Your task to perform on an android device: turn off airplane mode Image 0: 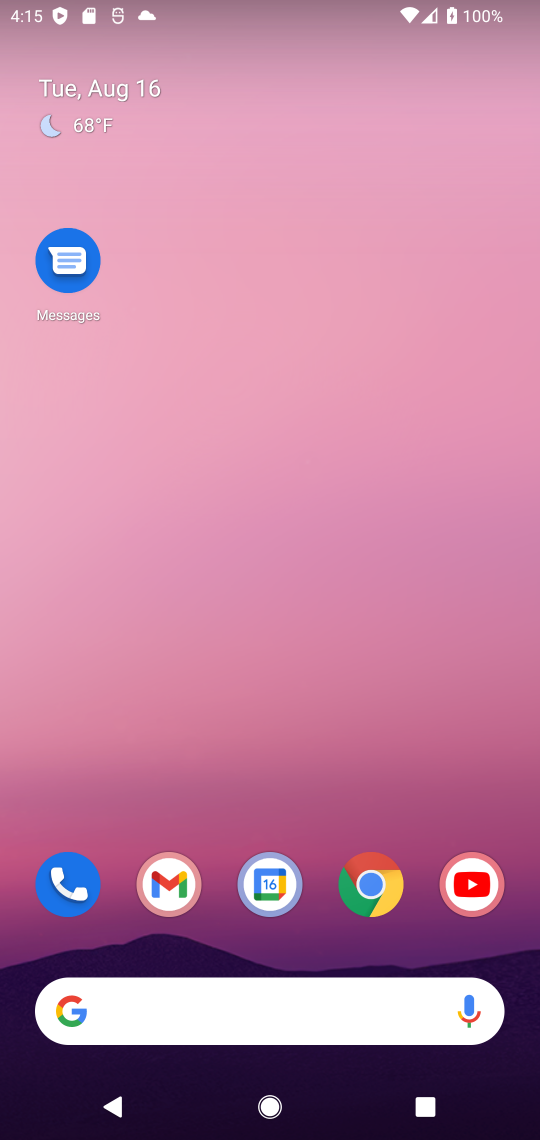
Step 0: drag from (8, 1117) to (425, 69)
Your task to perform on an android device: turn off airplane mode Image 1: 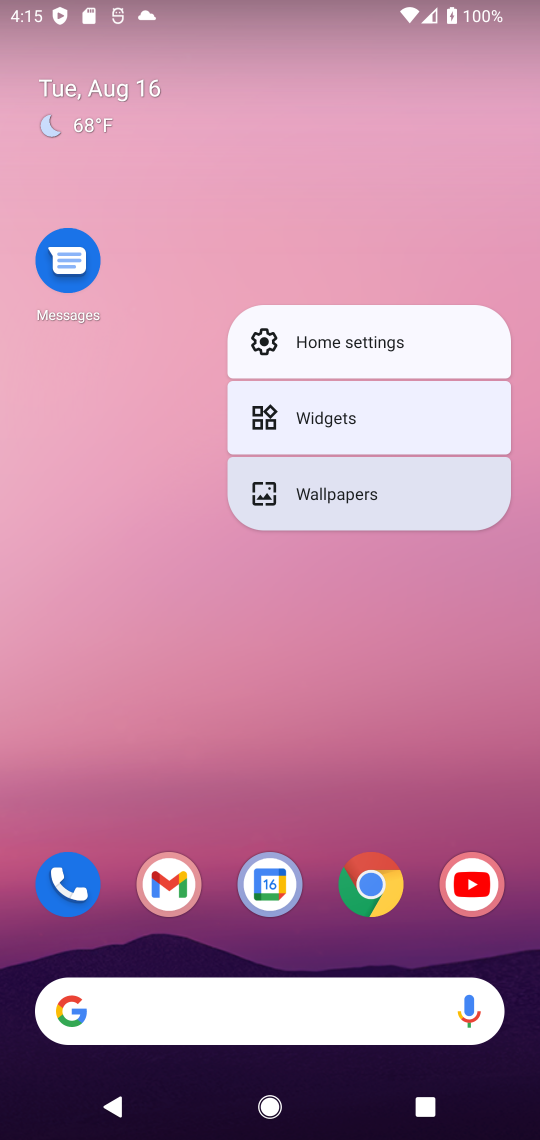
Step 1: task complete